Your task to perform on an android device: change the clock display to analog Image 0: 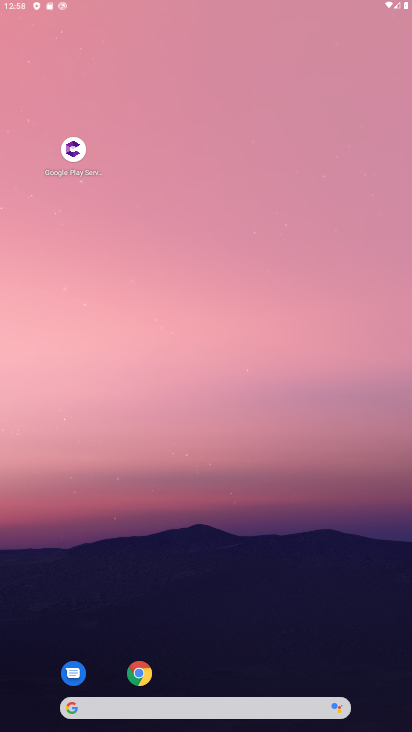
Step 0: press home button
Your task to perform on an android device: change the clock display to analog Image 1: 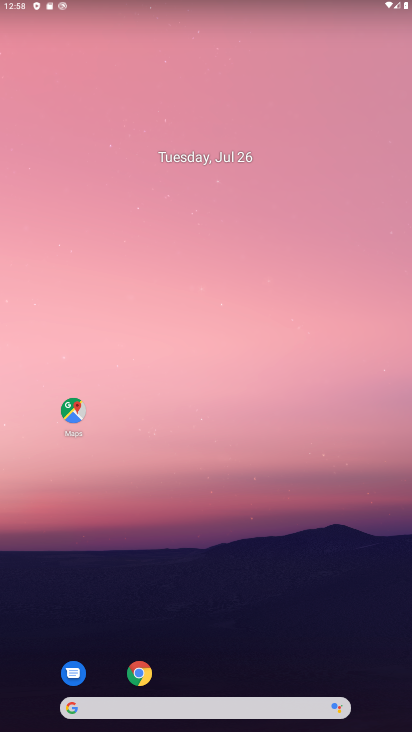
Step 1: drag from (229, 639) to (261, 4)
Your task to perform on an android device: change the clock display to analog Image 2: 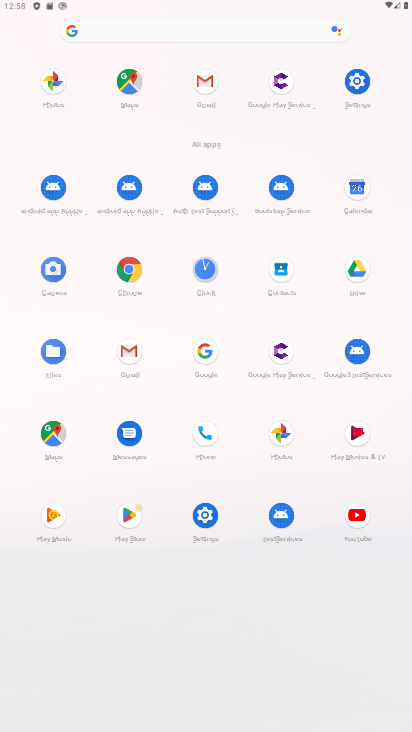
Step 2: click (198, 264)
Your task to perform on an android device: change the clock display to analog Image 3: 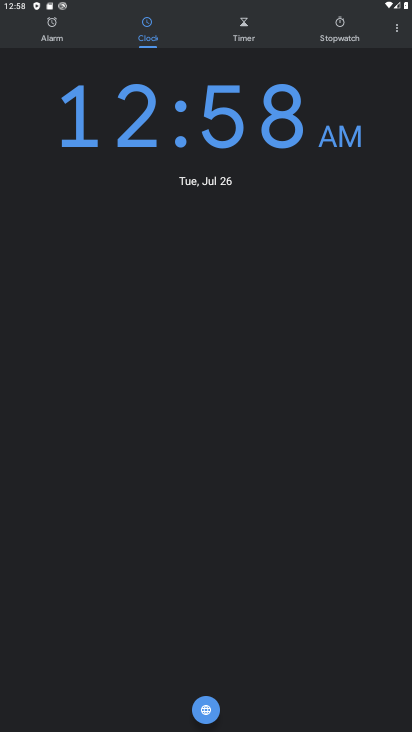
Step 3: click (395, 36)
Your task to perform on an android device: change the clock display to analog Image 4: 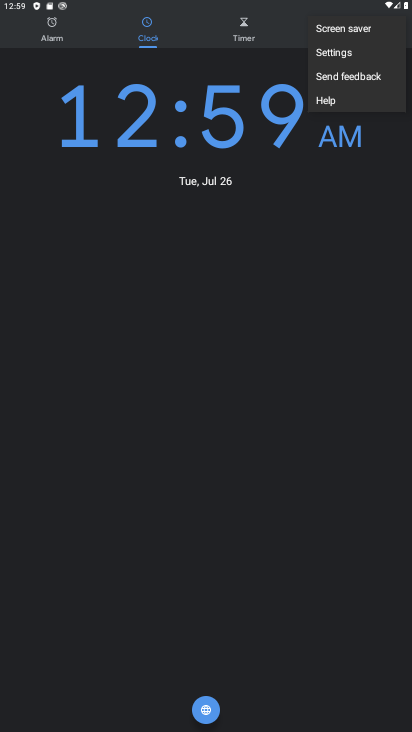
Step 4: click (357, 53)
Your task to perform on an android device: change the clock display to analog Image 5: 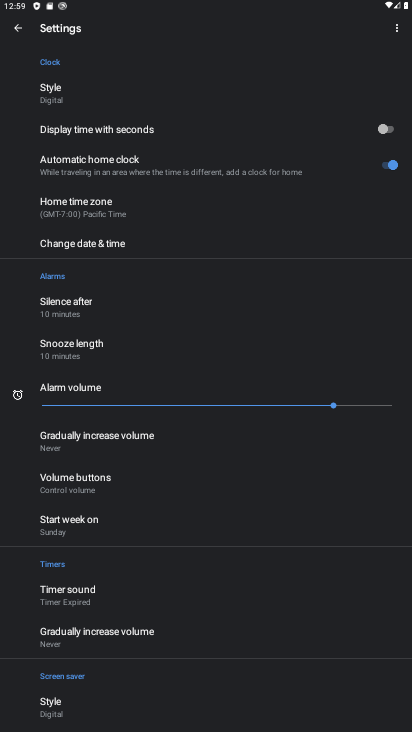
Step 5: click (81, 98)
Your task to perform on an android device: change the clock display to analog Image 6: 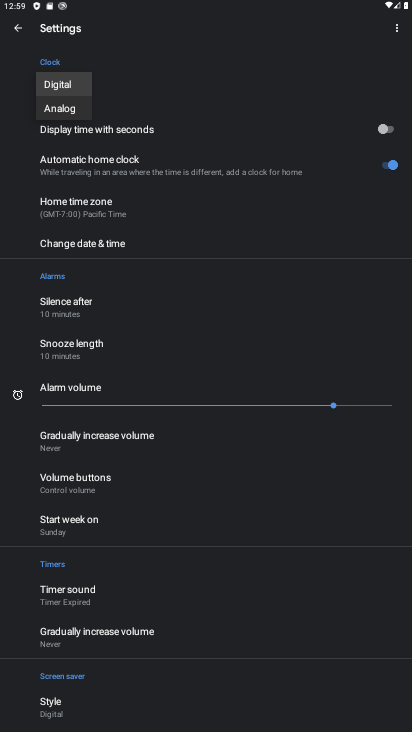
Step 6: click (83, 113)
Your task to perform on an android device: change the clock display to analog Image 7: 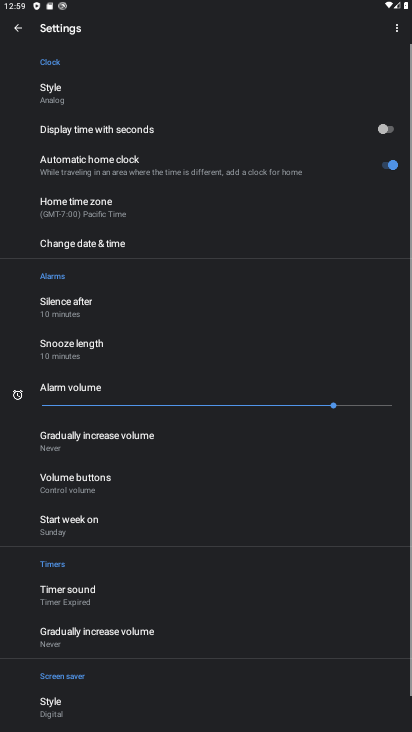
Step 7: task complete